Your task to perform on an android device: Open location settings Image 0: 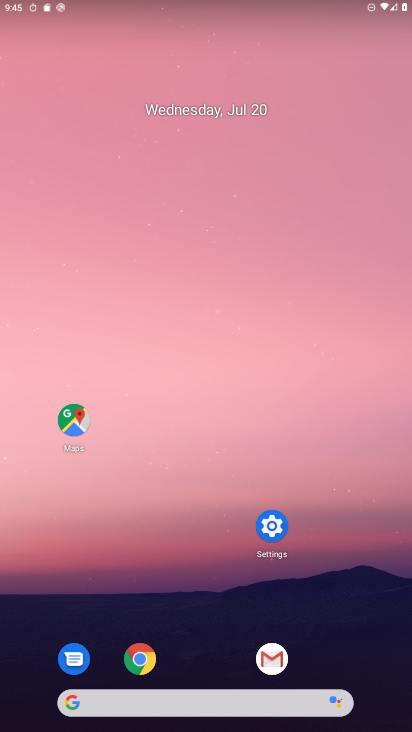
Step 0: click (272, 523)
Your task to perform on an android device: Open location settings Image 1: 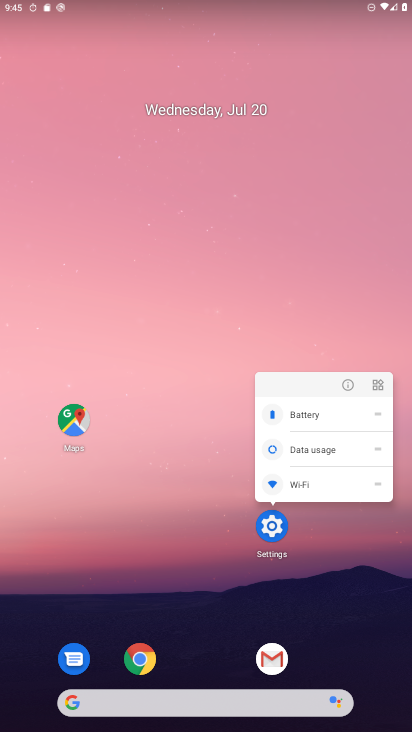
Step 1: click (245, 233)
Your task to perform on an android device: Open location settings Image 2: 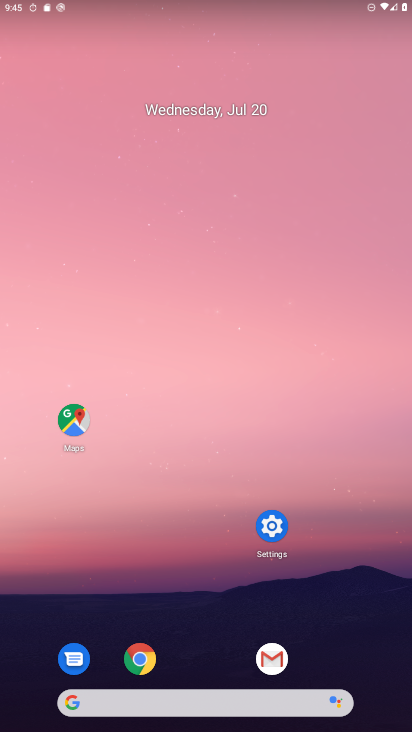
Step 2: click (271, 535)
Your task to perform on an android device: Open location settings Image 3: 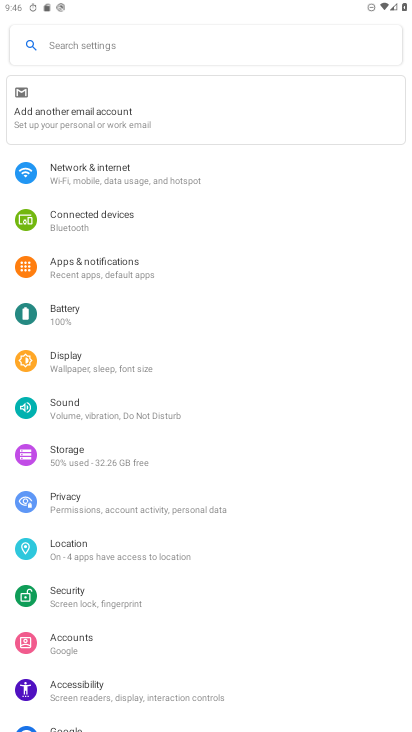
Step 3: click (91, 539)
Your task to perform on an android device: Open location settings Image 4: 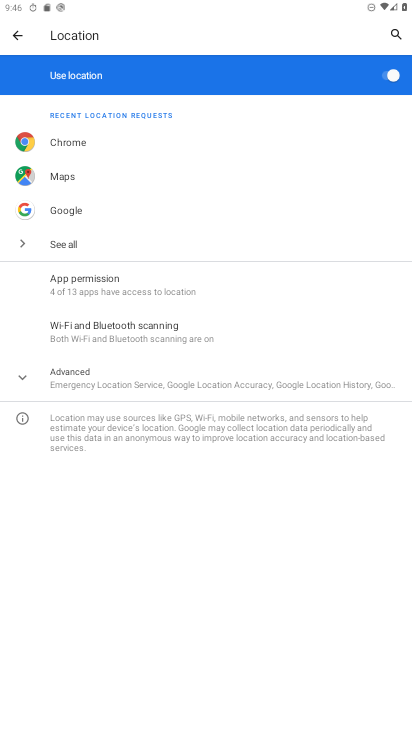
Step 4: task complete